Your task to perform on an android device: Open settings on Google Maps Image 0: 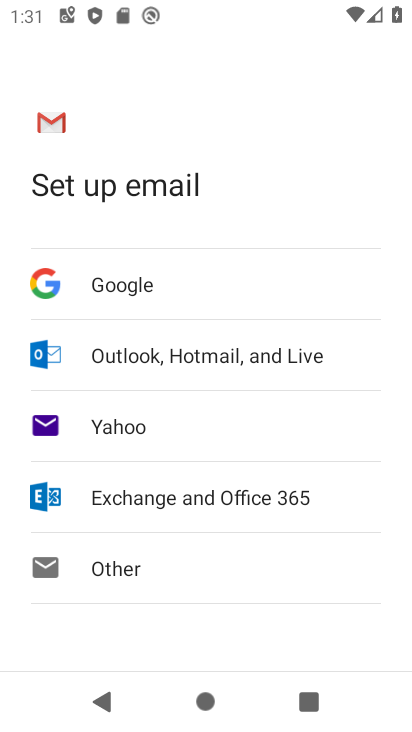
Step 0: press home button
Your task to perform on an android device: Open settings on Google Maps Image 1: 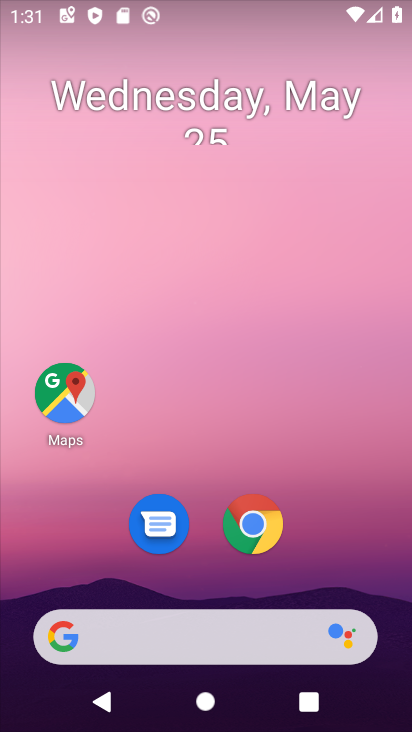
Step 1: click (65, 373)
Your task to perform on an android device: Open settings on Google Maps Image 2: 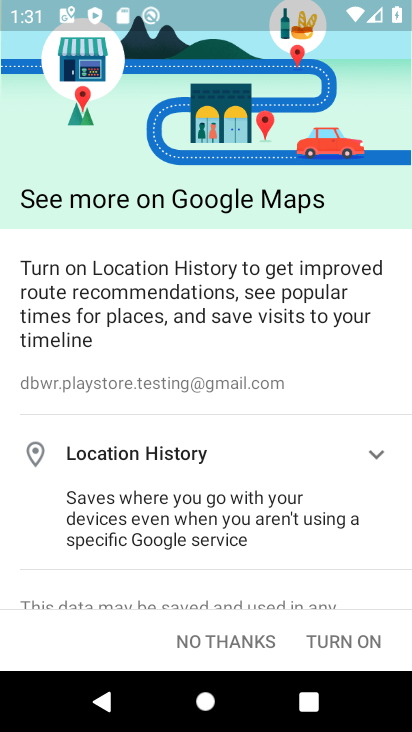
Step 2: click (325, 638)
Your task to perform on an android device: Open settings on Google Maps Image 3: 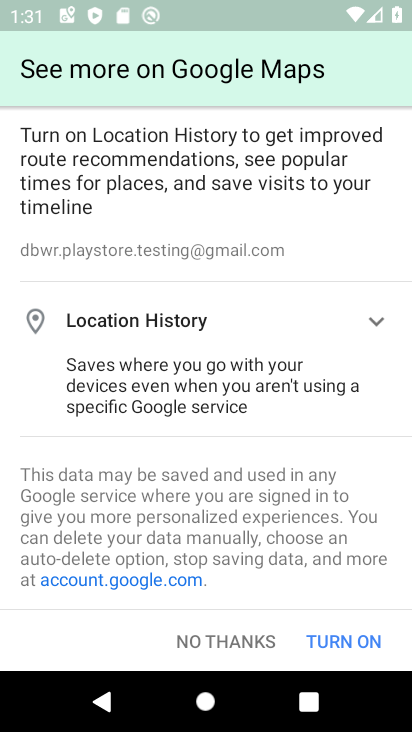
Step 3: click (334, 636)
Your task to perform on an android device: Open settings on Google Maps Image 4: 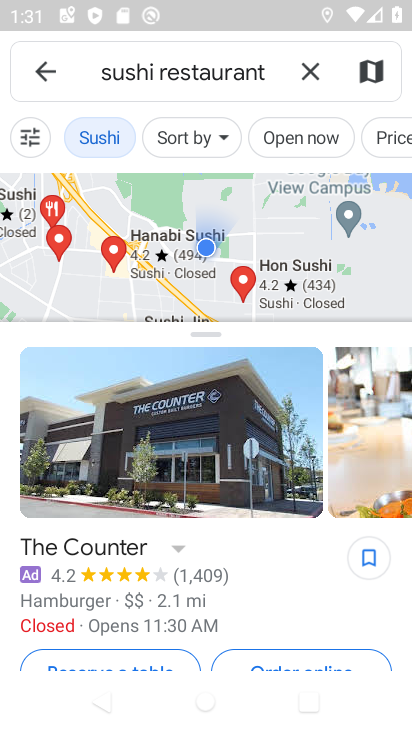
Step 4: click (313, 57)
Your task to perform on an android device: Open settings on Google Maps Image 5: 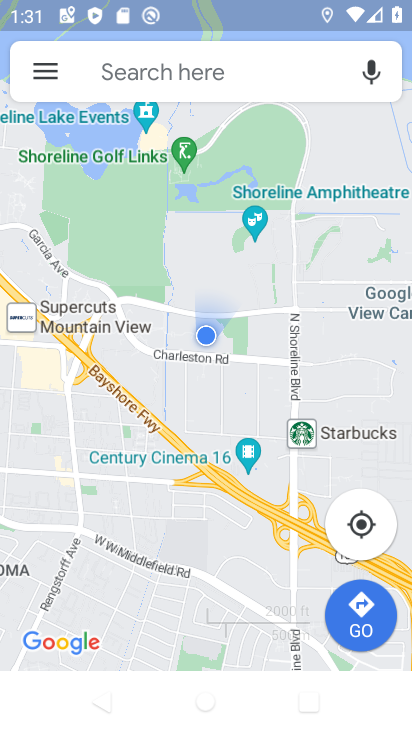
Step 5: click (47, 65)
Your task to perform on an android device: Open settings on Google Maps Image 6: 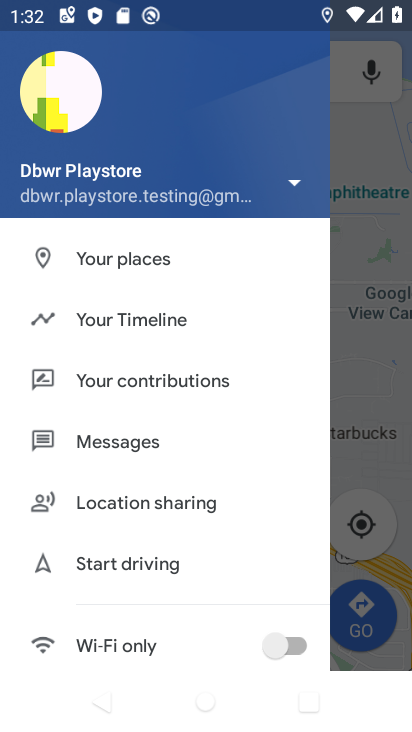
Step 6: drag from (162, 531) to (190, 22)
Your task to perform on an android device: Open settings on Google Maps Image 7: 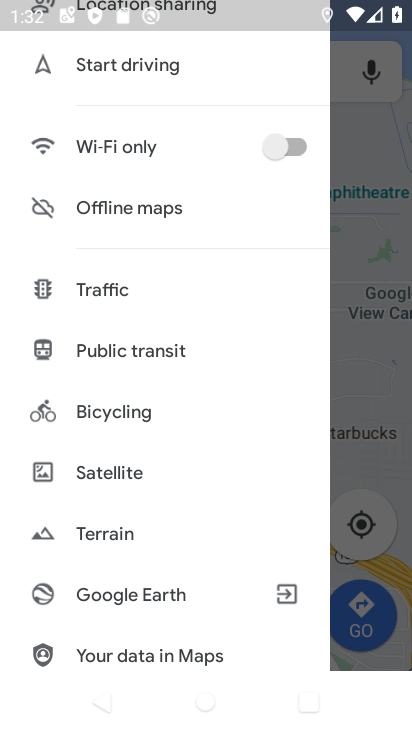
Step 7: drag from (183, 402) to (183, 0)
Your task to perform on an android device: Open settings on Google Maps Image 8: 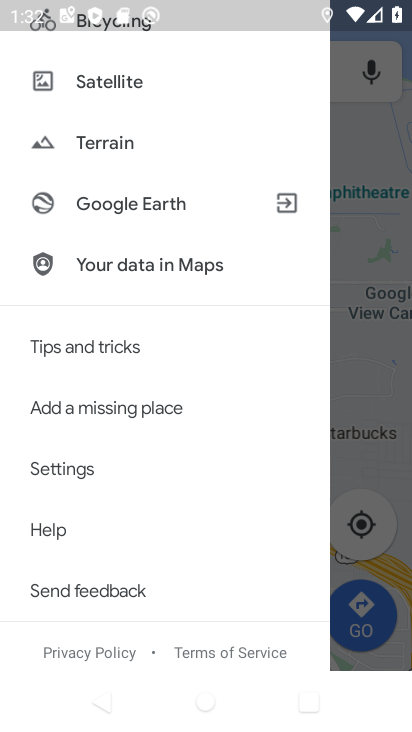
Step 8: click (94, 461)
Your task to perform on an android device: Open settings on Google Maps Image 9: 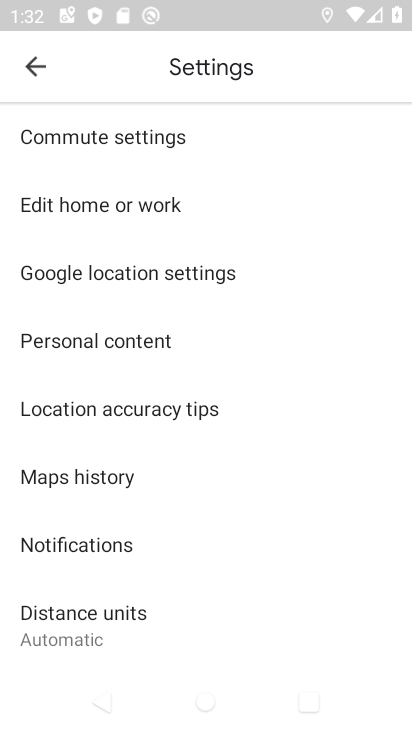
Step 9: task complete